Your task to perform on an android device: open app "McDonald's" (install if not already installed) and enter user name: "copes@yahoo.com" and password: "Rhenish" Image 0: 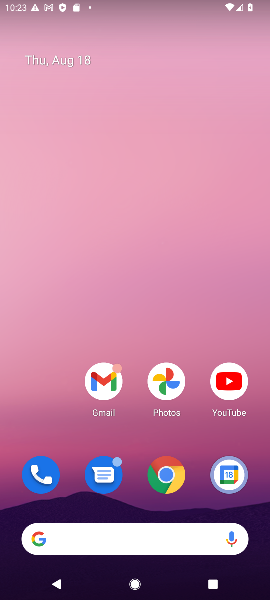
Step 0: drag from (160, 516) to (81, 86)
Your task to perform on an android device: open app "McDonald's" (install if not already installed) and enter user name: "copes@yahoo.com" and password: "Rhenish" Image 1: 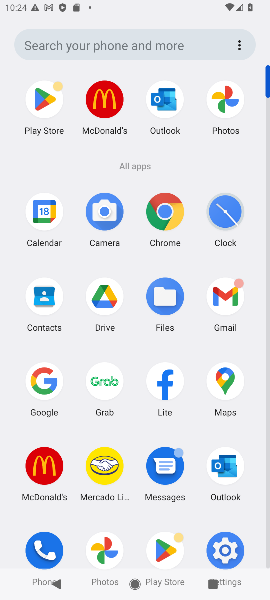
Step 1: click (94, 106)
Your task to perform on an android device: open app "McDonald's" (install if not already installed) and enter user name: "copes@yahoo.com" and password: "Rhenish" Image 2: 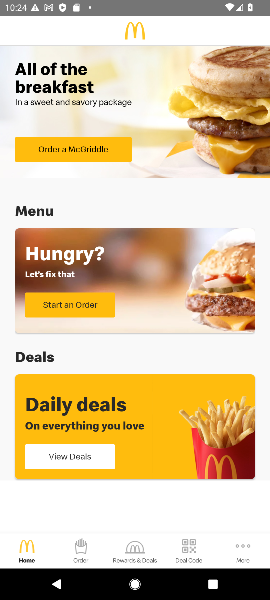
Step 2: click (237, 545)
Your task to perform on an android device: open app "McDonald's" (install if not already installed) and enter user name: "copes@yahoo.com" and password: "Rhenish" Image 3: 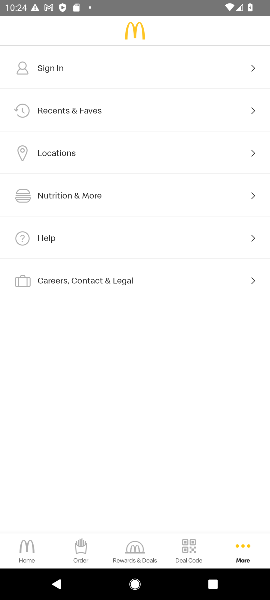
Step 3: click (37, 72)
Your task to perform on an android device: open app "McDonald's" (install if not already installed) and enter user name: "copes@yahoo.com" and password: "Rhenish" Image 4: 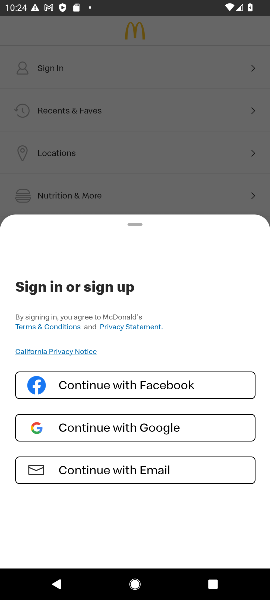
Step 4: click (135, 480)
Your task to perform on an android device: open app "McDonald's" (install if not already installed) and enter user name: "copes@yahoo.com" and password: "Rhenish" Image 5: 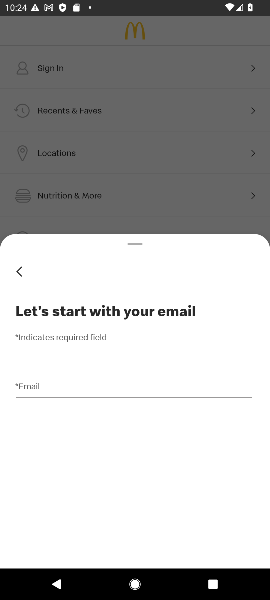
Step 5: click (93, 392)
Your task to perform on an android device: open app "McDonald's" (install if not already installed) and enter user name: "copes@yahoo.com" and password: "Rhenish" Image 6: 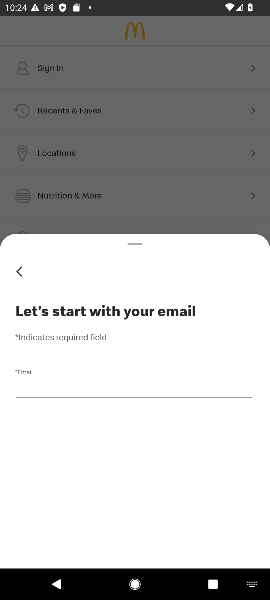
Step 6: type "copes@yahoo.com"
Your task to perform on an android device: open app "McDonald's" (install if not already installed) and enter user name: "copes@yahoo.com" and password: "Rhenish" Image 7: 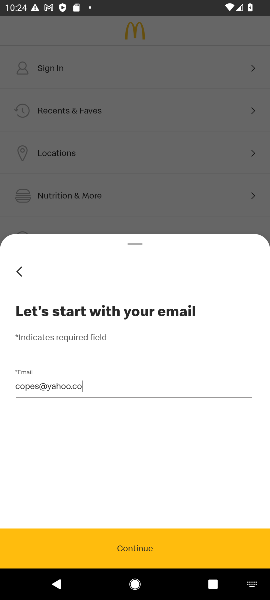
Step 7: type ""
Your task to perform on an android device: open app "McDonald's" (install if not already installed) and enter user name: "copes@yahoo.com" and password: "Rhenish" Image 8: 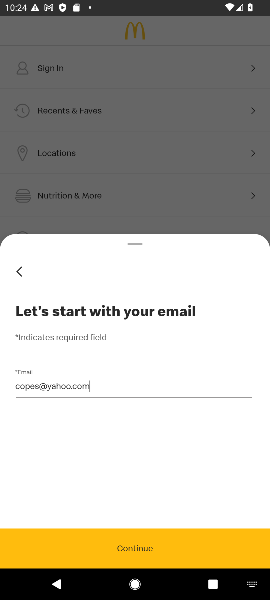
Step 8: click (110, 537)
Your task to perform on an android device: open app "McDonald's" (install if not already installed) and enter user name: "copes@yahoo.com" and password: "Rhenish" Image 9: 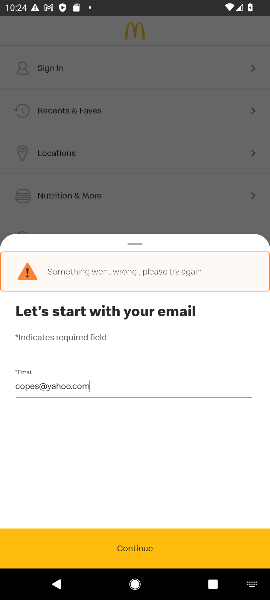
Step 9: task complete